Your task to perform on an android device: Open calendar and show me the third week of next month Image 0: 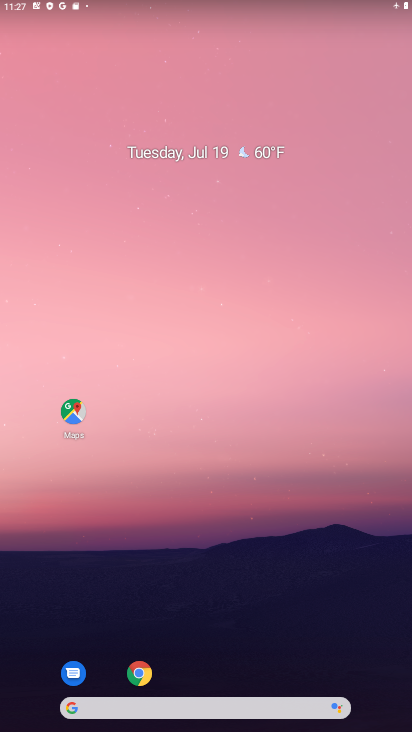
Step 0: drag from (392, 684) to (329, 246)
Your task to perform on an android device: Open calendar and show me the third week of next month Image 1: 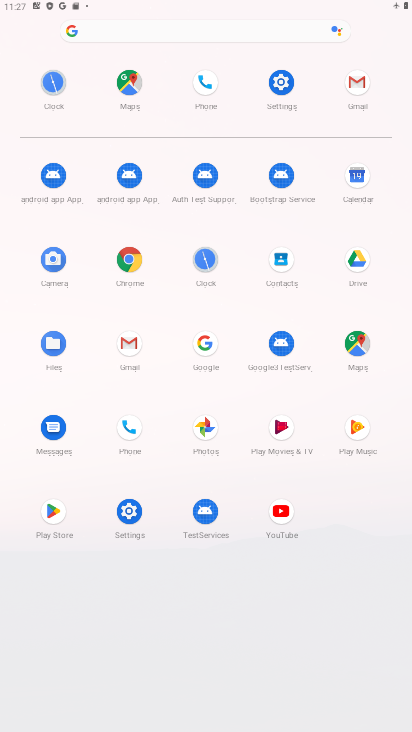
Step 1: click (357, 177)
Your task to perform on an android device: Open calendar and show me the third week of next month Image 2: 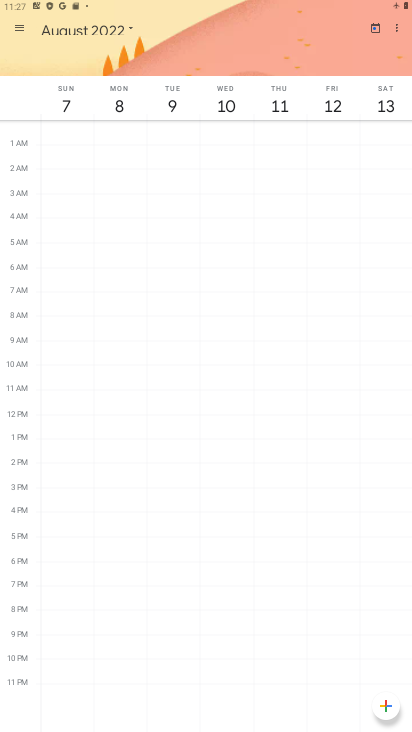
Step 2: click (127, 27)
Your task to perform on an android device: Open calendar and show me the third week of next month Image 3: 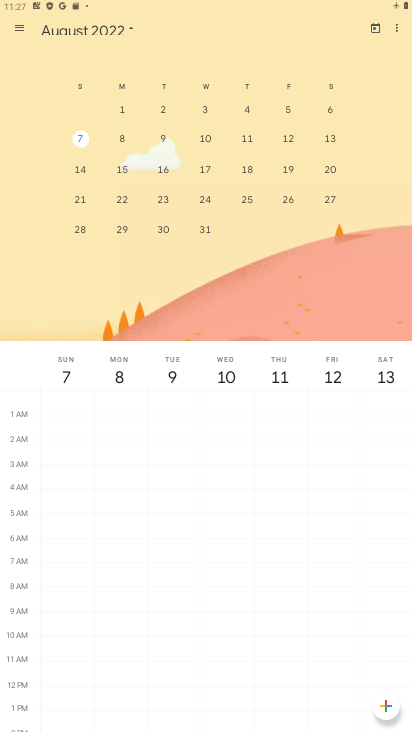
Step 3: click (78, 198)
Your task to perform on an android device: Open calendar and show me the third week of next month Image 4: 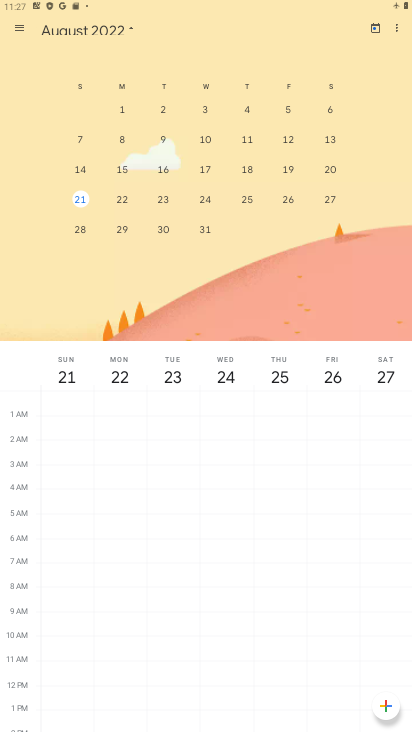
Step 4: task complete